Your task to perform on an android device: What's the weather? Image 0: 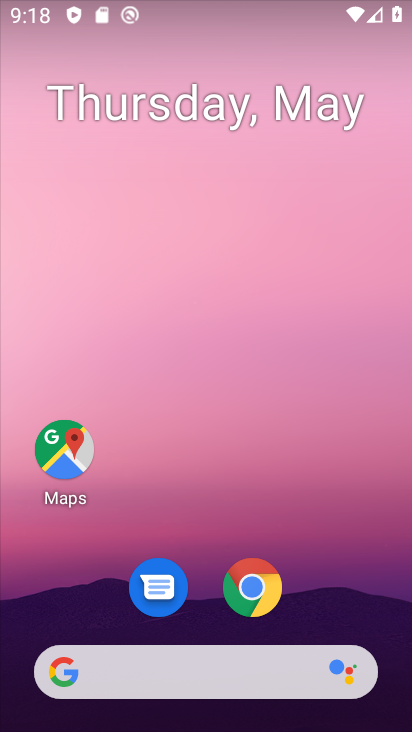
Step 0: click (131, 677)
Your task to perform on an android device: What's the weather? Image 1: 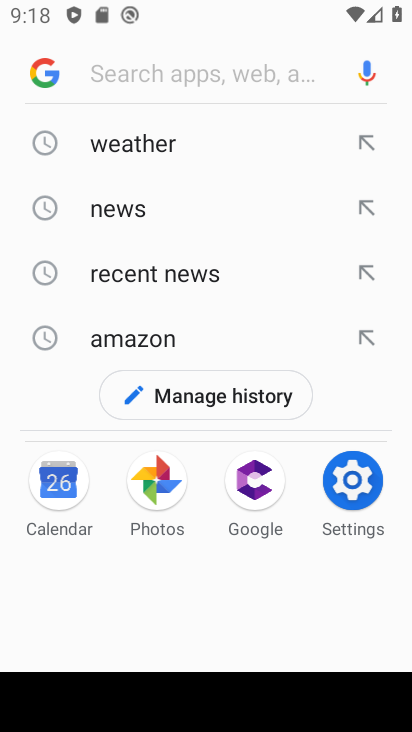
Step 1: click (125, 153)
Your task to perform on an android device: What's the weather? Image 2: 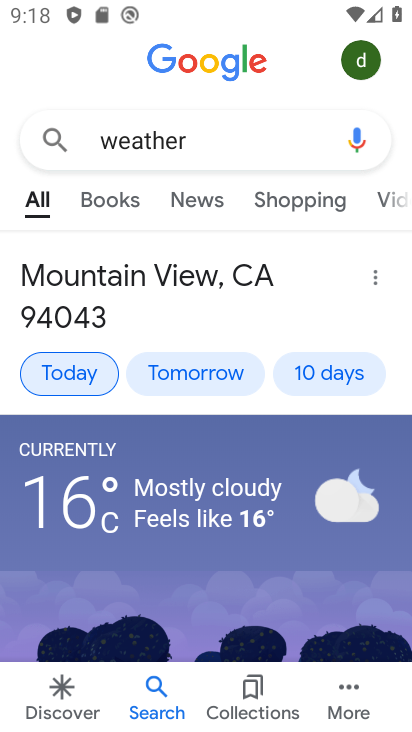
Step 2: task complete